Your task to perform on an android device: show emergency info Image 0: 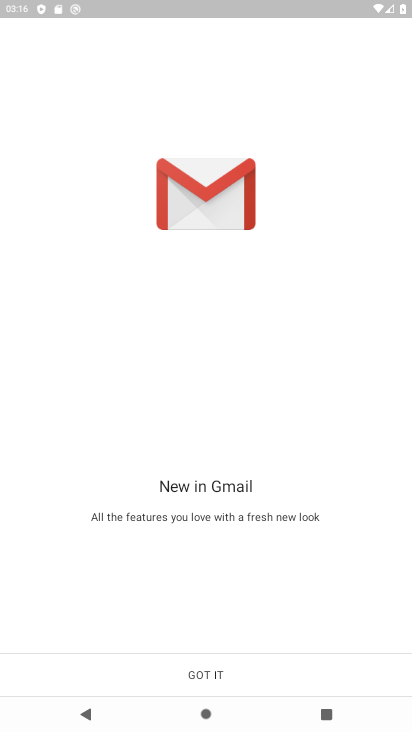
Step 0: press home button
Your task to perform on an android device: show emergency info Image 1: 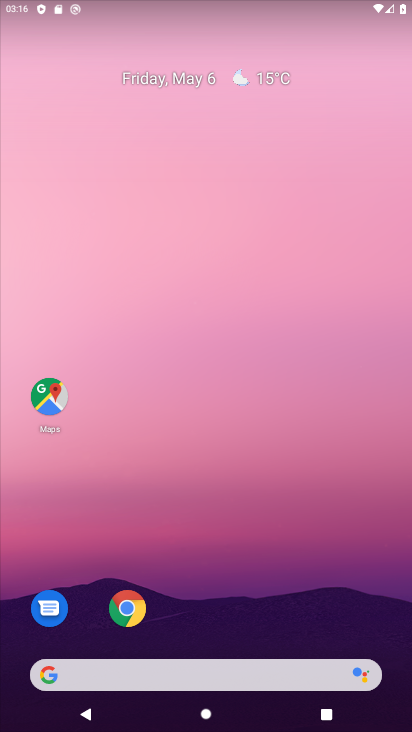
Step 1: drag from (215, 679) to (209, 269)
Your task to perform on an android device: show emergency info Image 2: 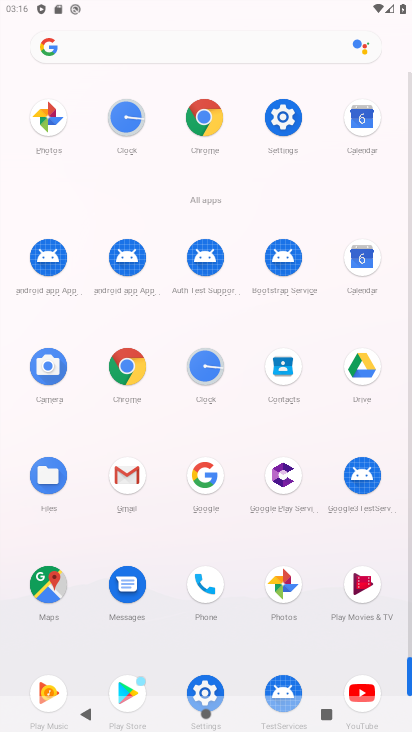
Step 2: click (282, 113)
Your task to perform on an android device: show emergency info Image 3: 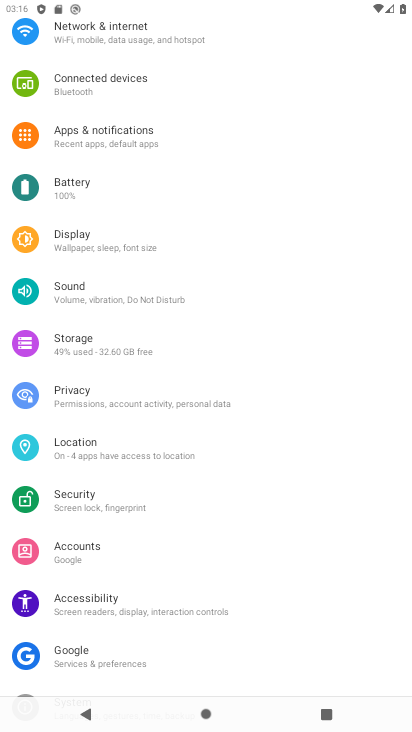
Step 3: drag from (97, 640) to (157, 91)
Your task to perform on an android device: show emergency info Image 4: 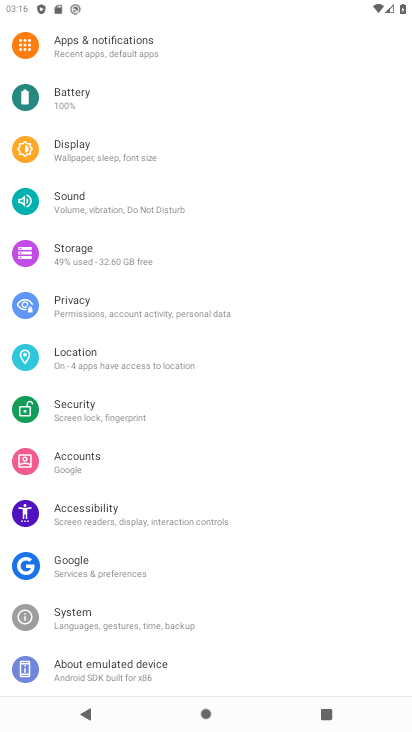
Step 4: click (154, 677)
Your task to perform on an android device: show emergency info Image 5: 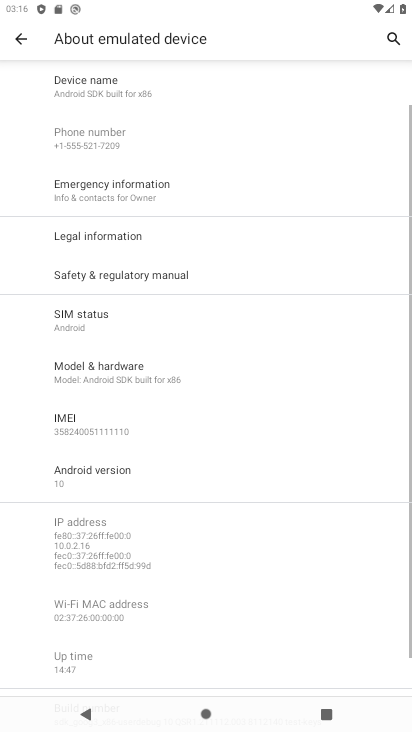
Step 5: drag from (178, 618) to (197, 23)
Your task to perform on an android device: show emergency info Image 6: 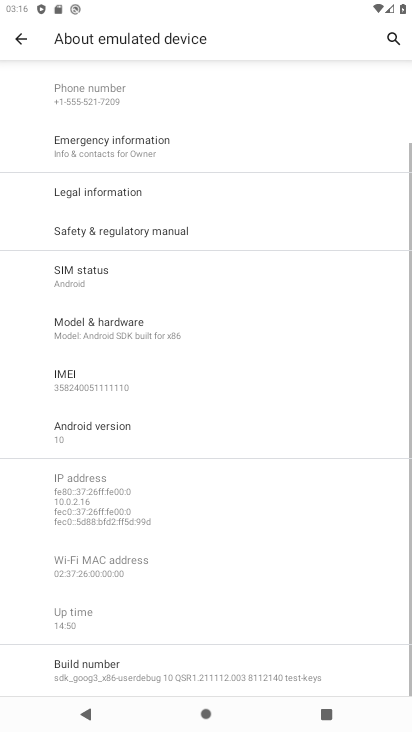
Step 6: click (115, 154)
Your task to perform on an android device: show emergency info Image 7: 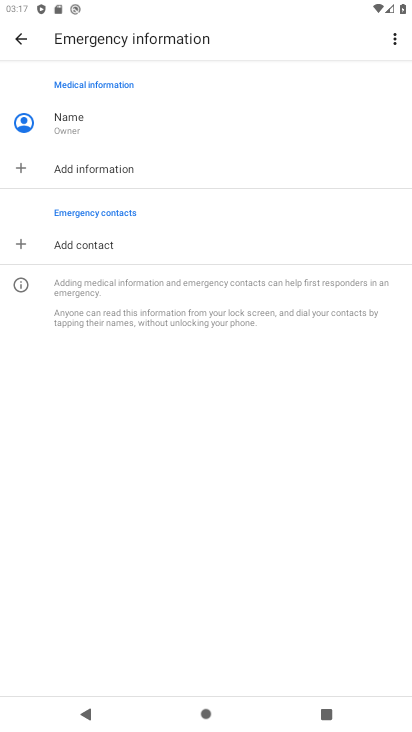
Step 7: task complete